Your task to perform on an android device: Go to Yahoo.com Image 0: 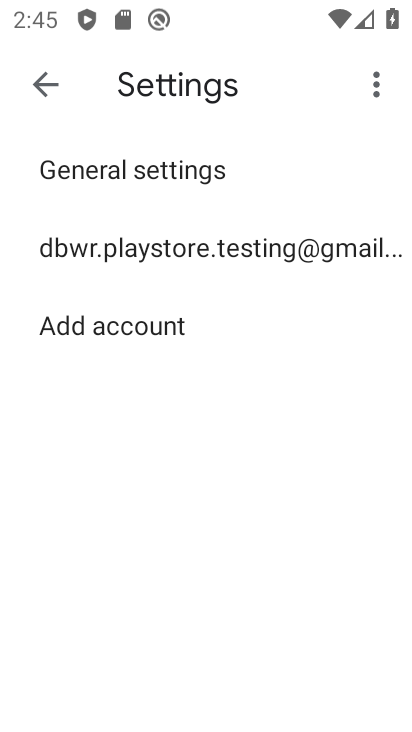
Step 0: press home button
Your task to perform on an android device: Go to Yahoo.com Image 1: 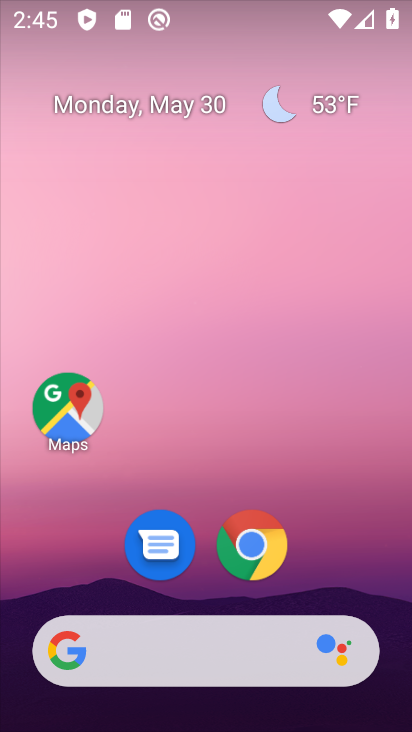
Step 1: click (252, 555)
Your task to perform on an android device: Go to Yahoo.com Image 2: 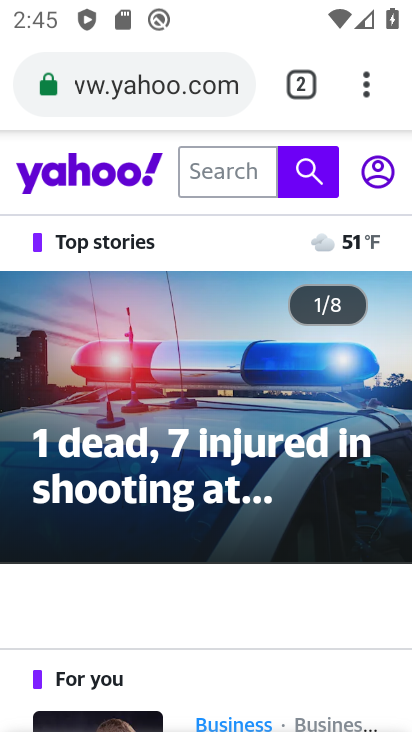
Step 2: task complete